Your task to perform on an android device: open app "Spotify" (install if not already installed), go to login, and select forgot password Image 0: 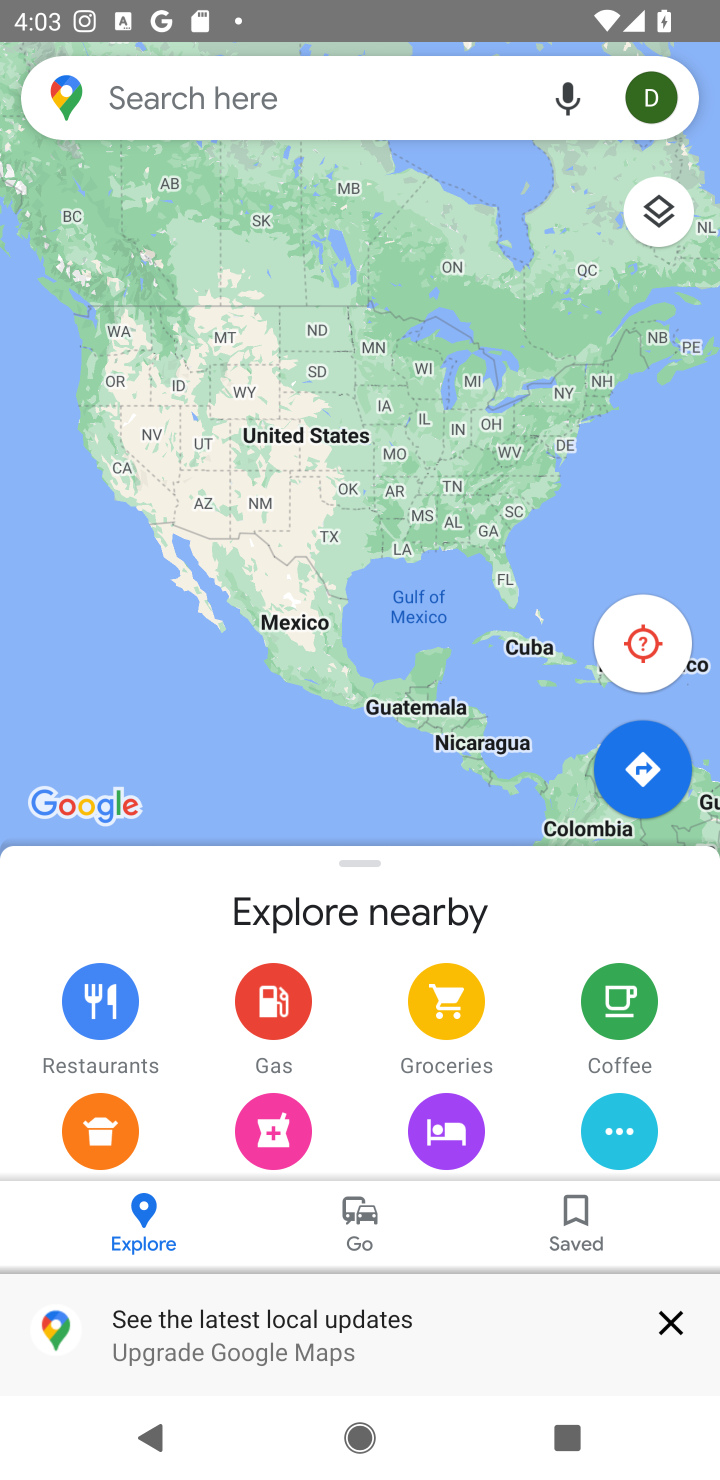
Step 0: press home button
Your task to perform on an android device: open app "Spotify" (install if not already installed), go to login, and select forgot password Image 1: 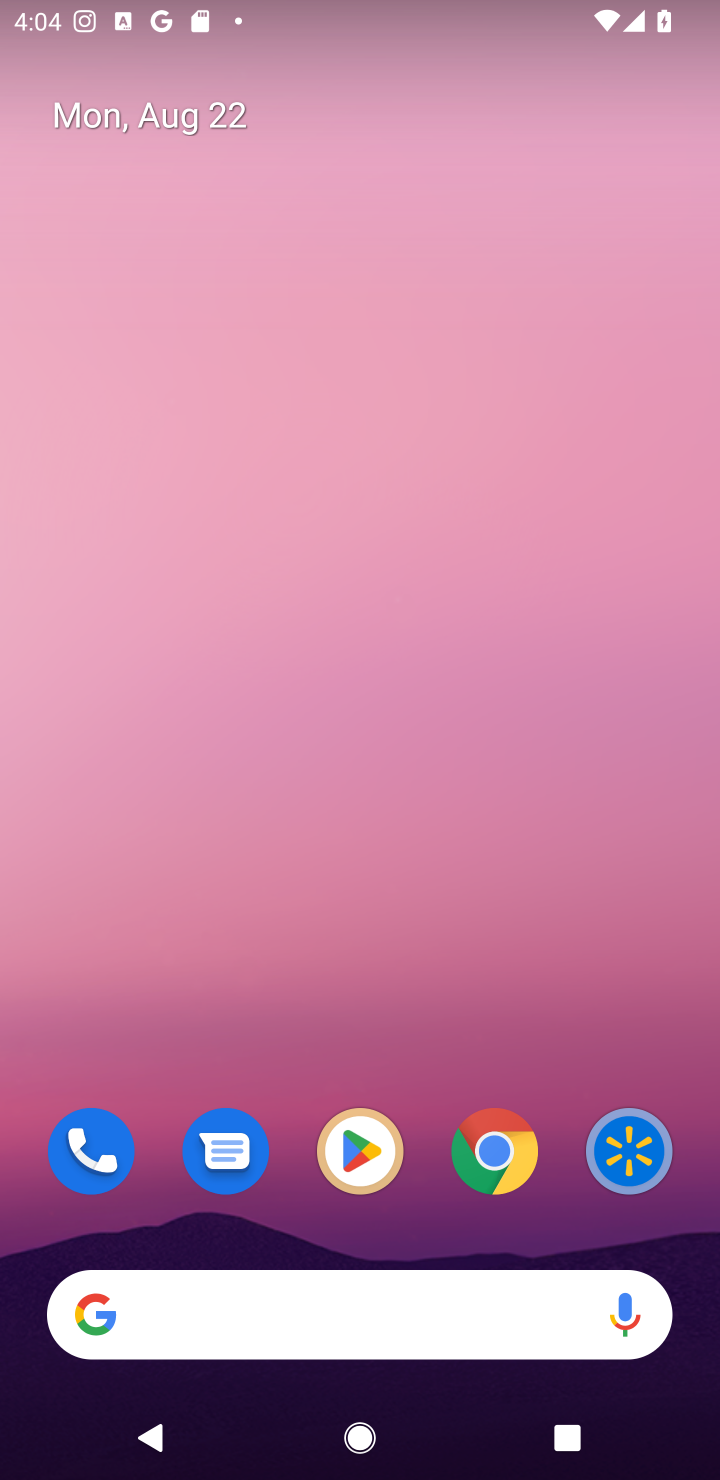
Step 1: click (366, 1152)
Your task to perform on an android device: open app "Spotify" (install if not already installed), go to login, and select forgot password Image 2: 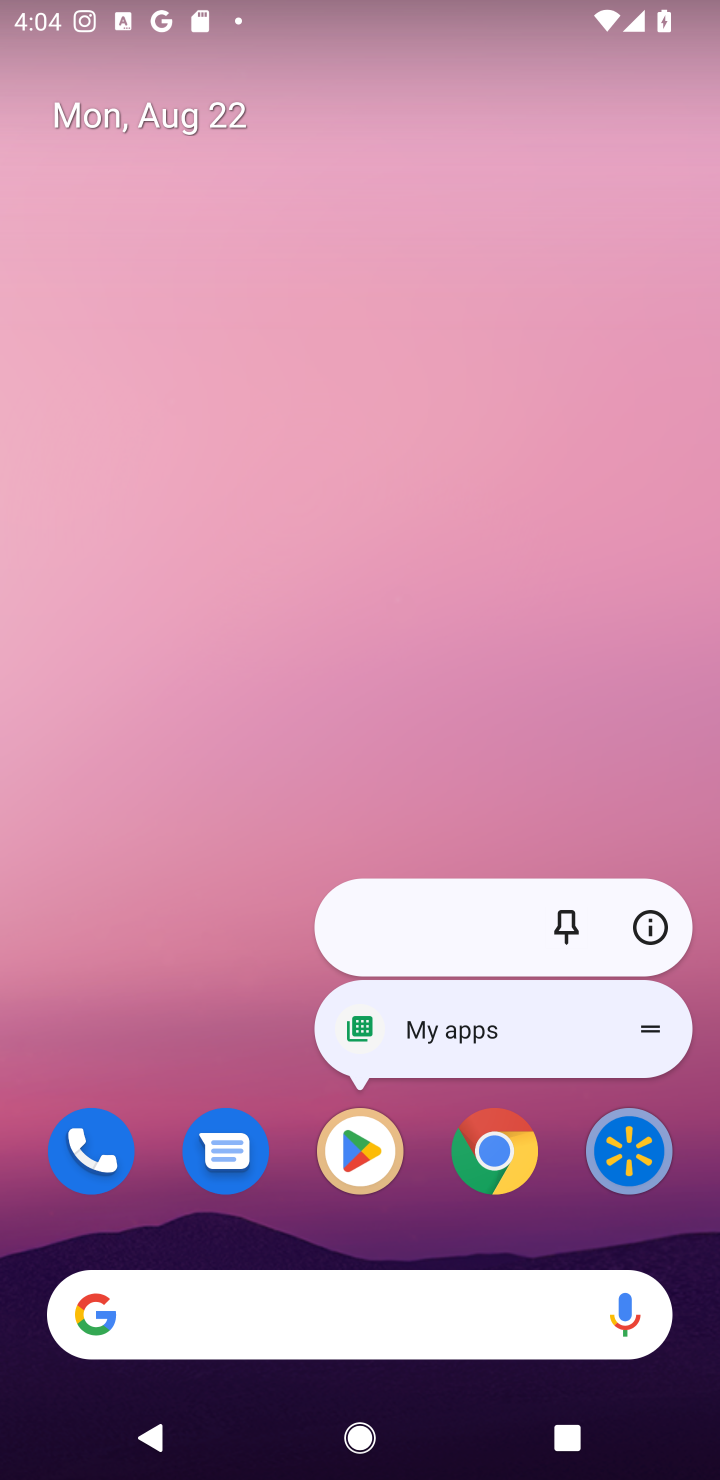
Step 2: click (366, 1150)
Your task to perform on an android device: open app "Spotify" (install if not already installed), go to login, and select forgot password Image 3: 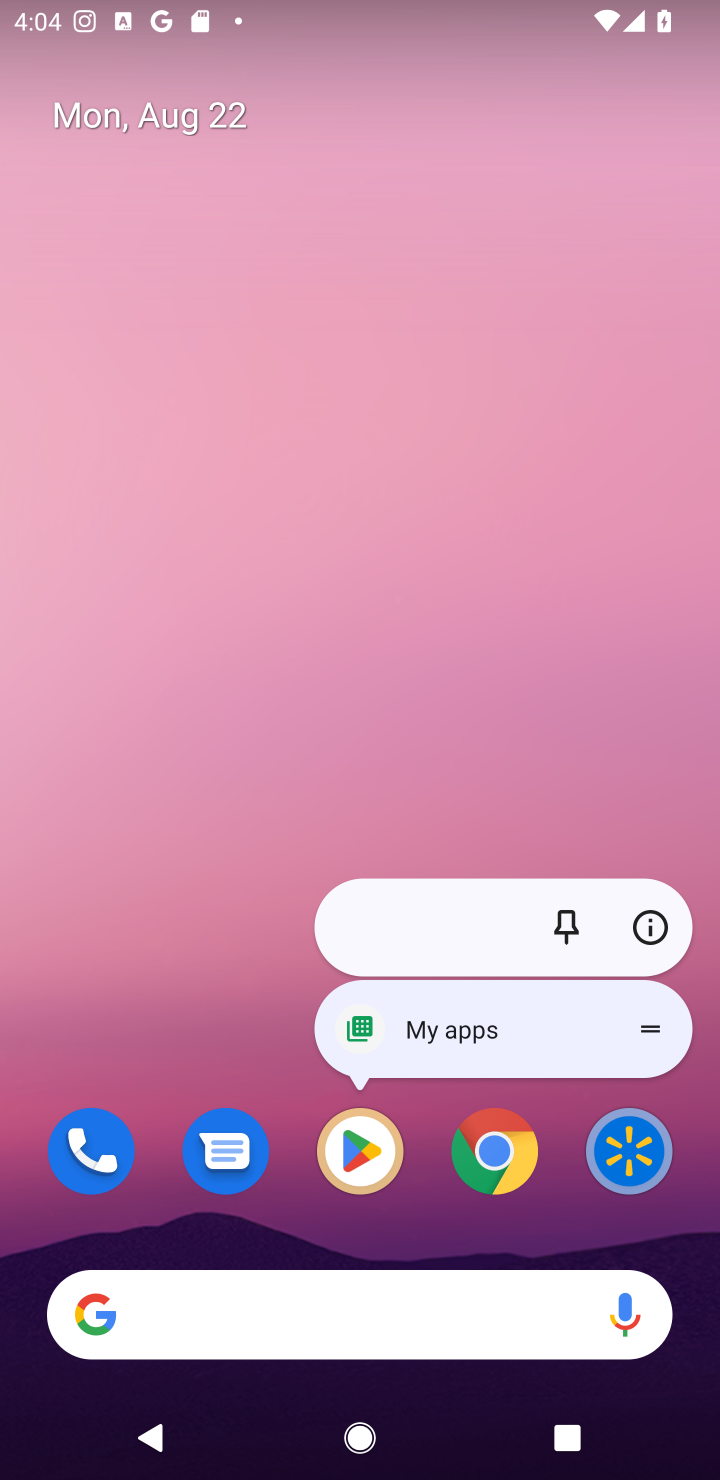
Step 3: click (366, 1150)
Your task to perform on an android device: open app "Spotify" (install if not already installed), go to login, and select forgot password Image 4: 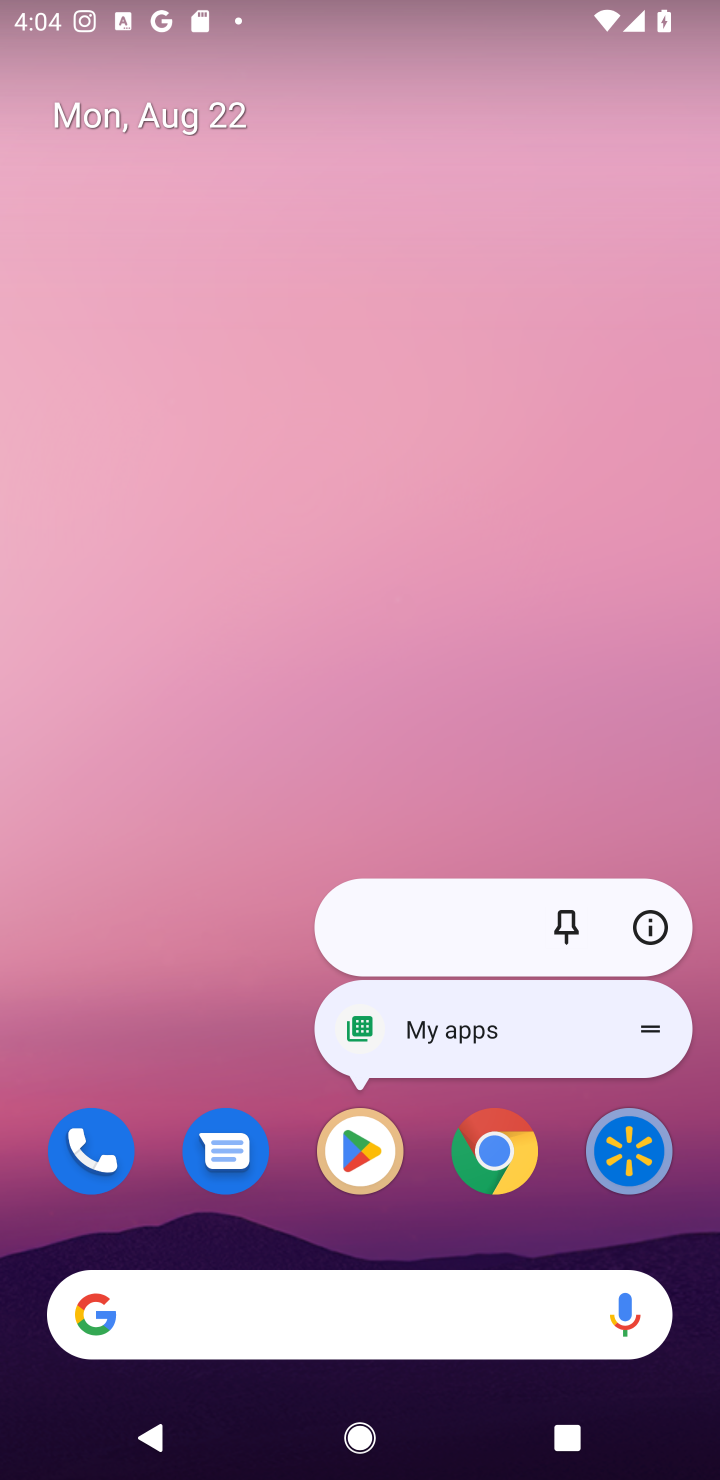
Step 4: click (362, 1150)
Your task to perform on an android device: open app "Spotify" (install if not already installed), go to login, and select forgot password Image 5: 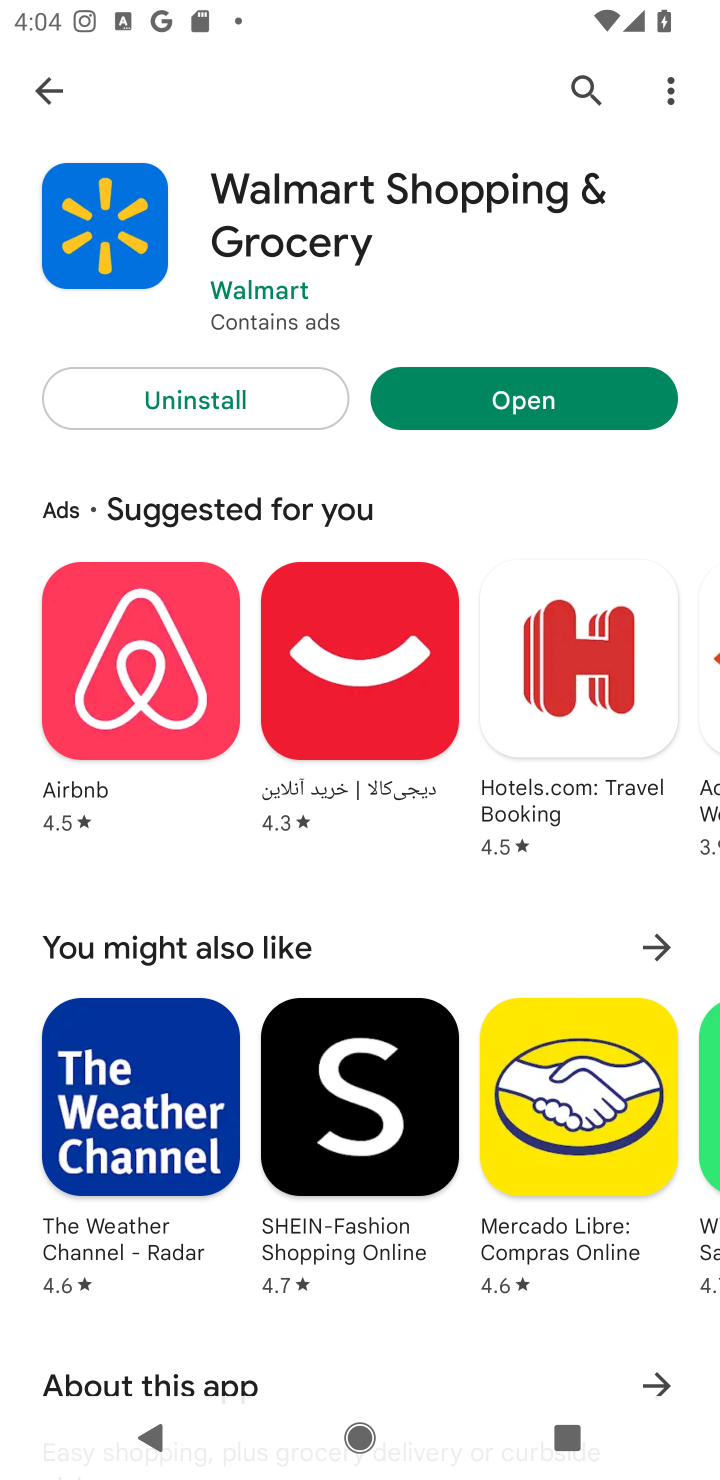
Step 5: click (589, 80)
Your task to perform on an android device: open app "Spotify" (install if not already installed), go to login, and select forgot password Image 6: 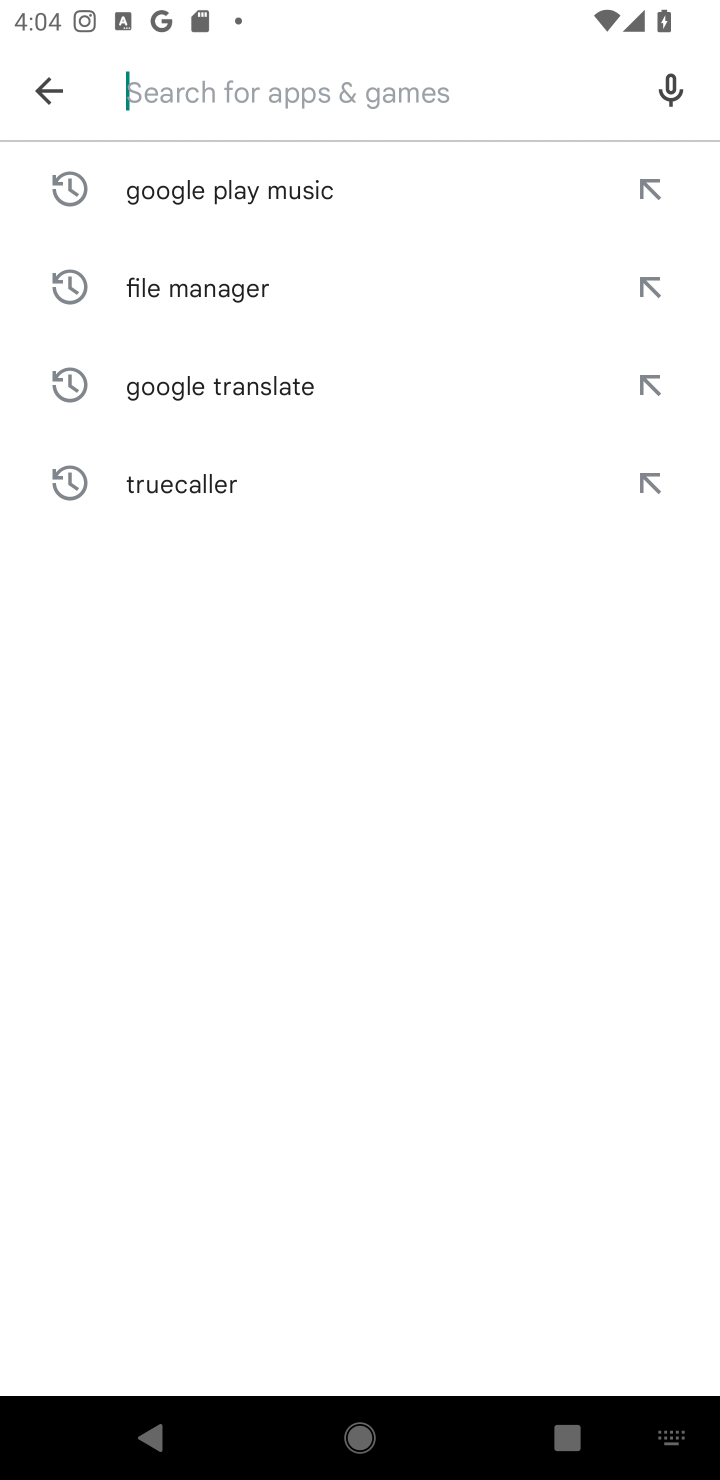
Step 6: type "Spotify"
Your task to perform on an android device: open app "Spotify" (install if not already installed), go to login, and select forgot password Image 7: 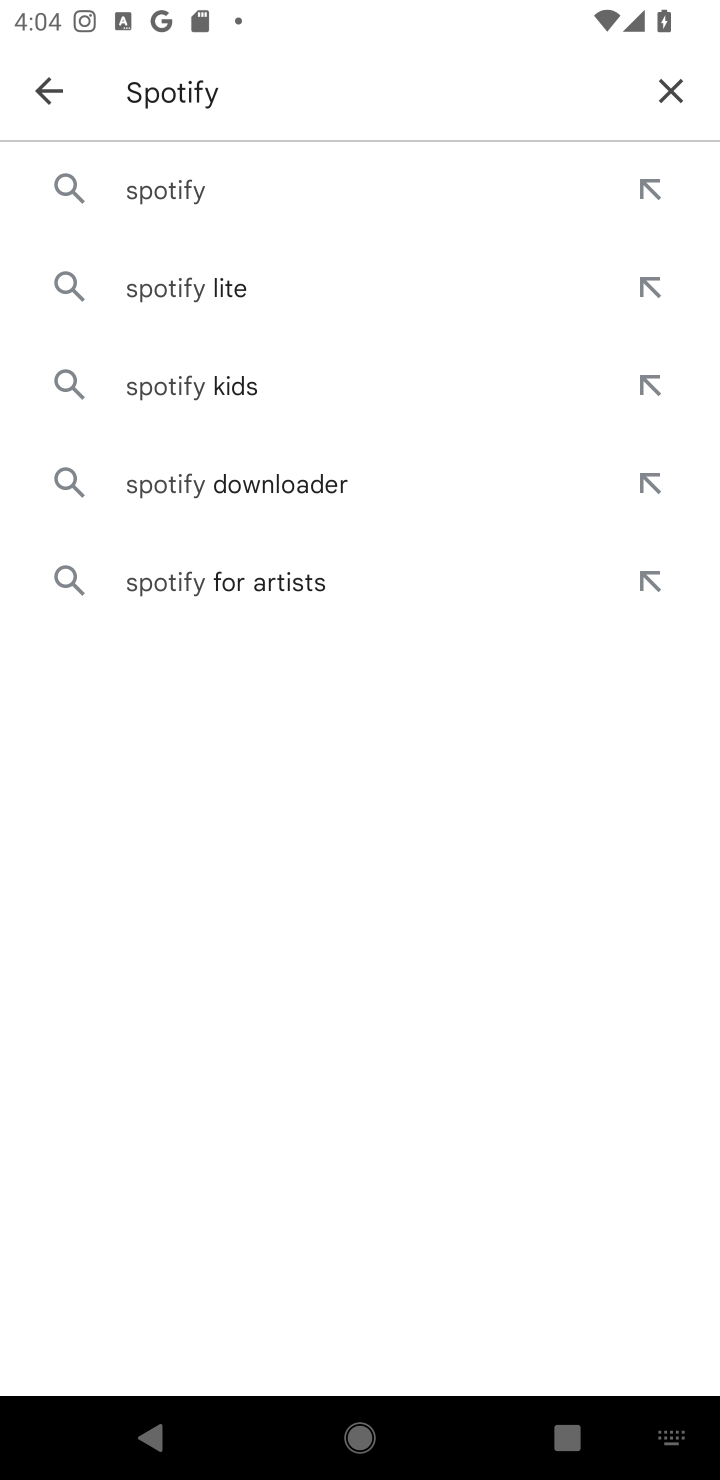
Step 7: click (193, 193)
Your task to perform on an android device: open app "Spotify" (install if not already installed), go to login, and select forgot password Image 8: 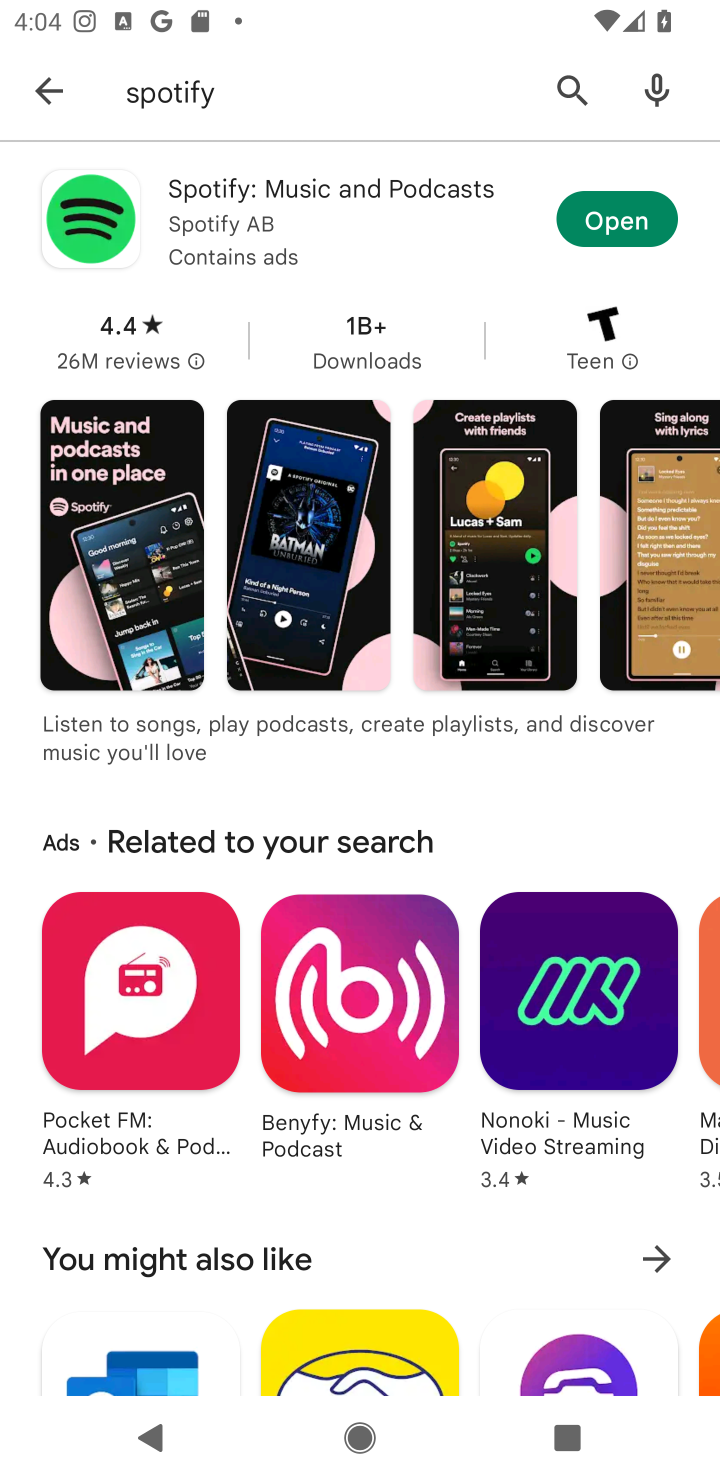
Step 8: click (653, 213)
Your task to perform on an android device: open app "Spotify" (install if not already installed), go to login, and select forgot password Image 9: 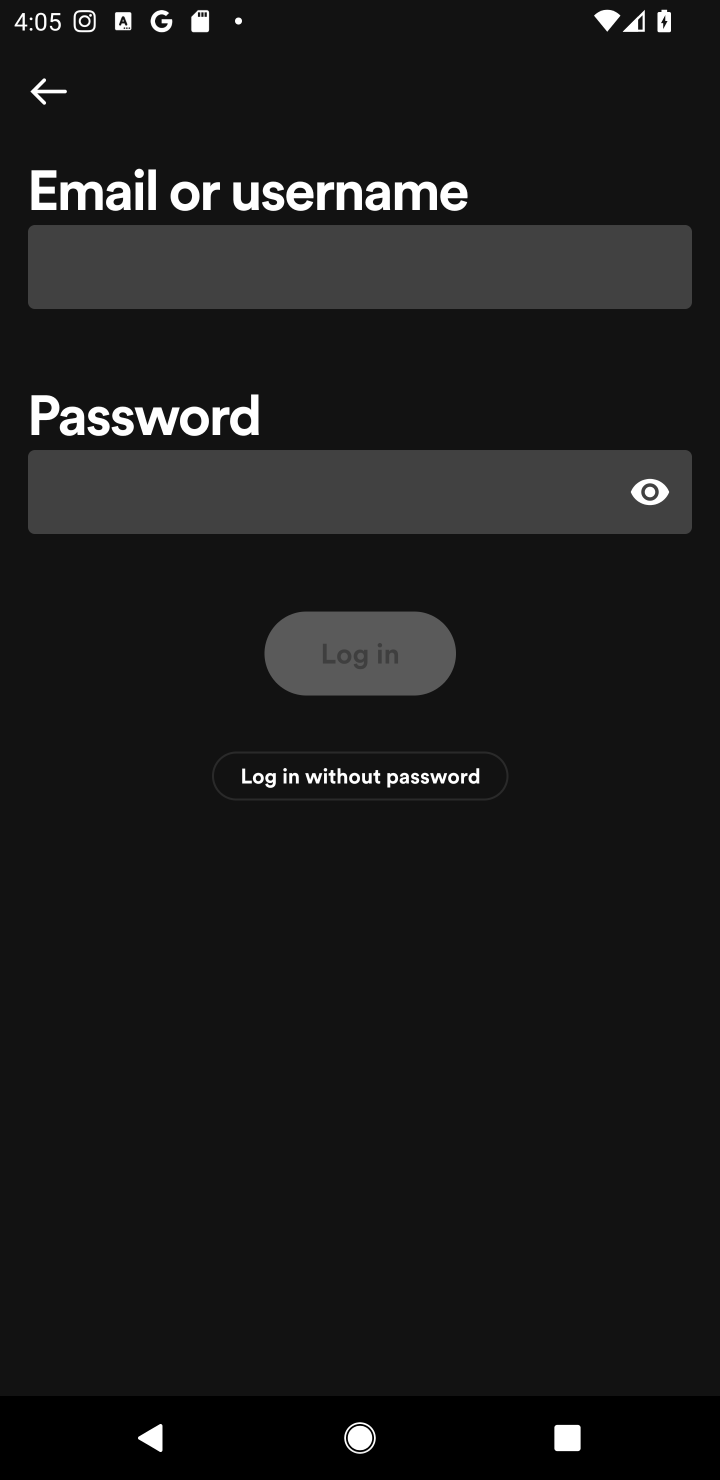
Step 9: task complete